Your task to perform on an android device: search for starred emails in the gmail app Image 0: 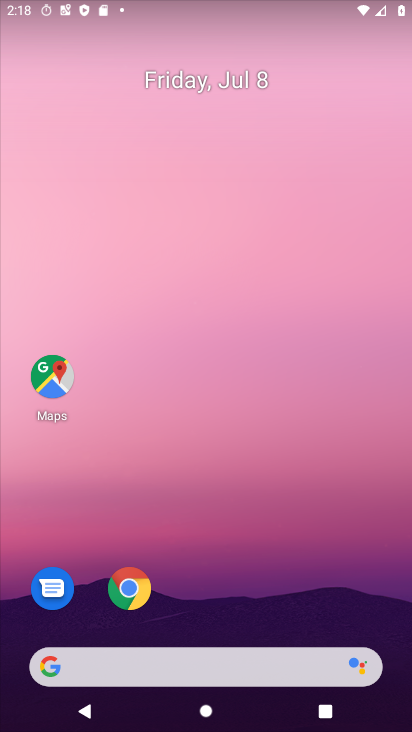
Step 0: press home button
Your task to perform on an android device: search for starred emails in the gmail app Image 1: 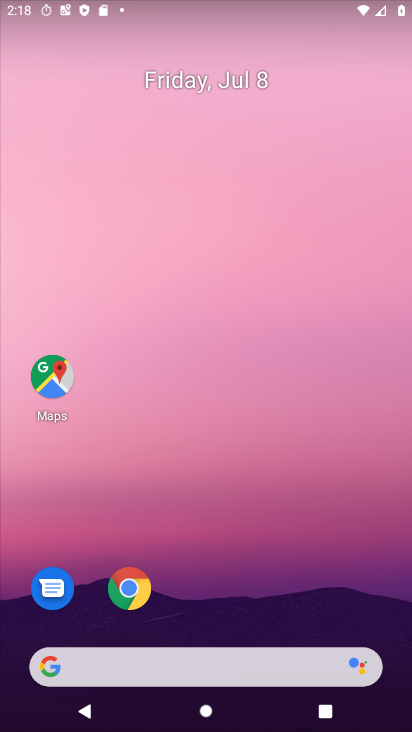
Step 1: drag from (232, 621) to (262, 13)
Your task to perform on an android device: search for starred emails in the gmail app Image 2: 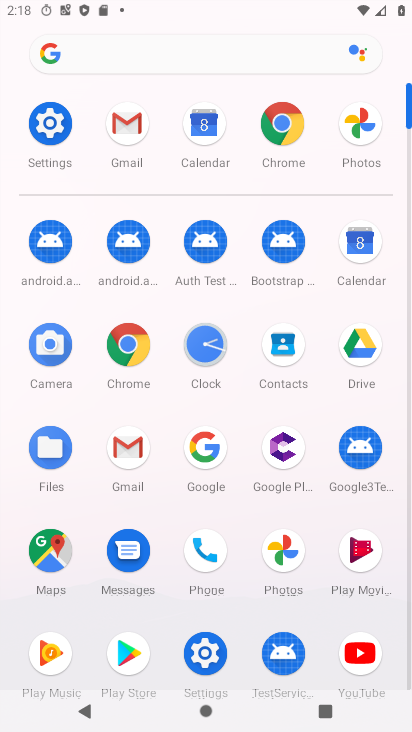
Step 2: click (122, 128)
Your task to perform on an android device: search for starred emails in the gmail app Image 3: 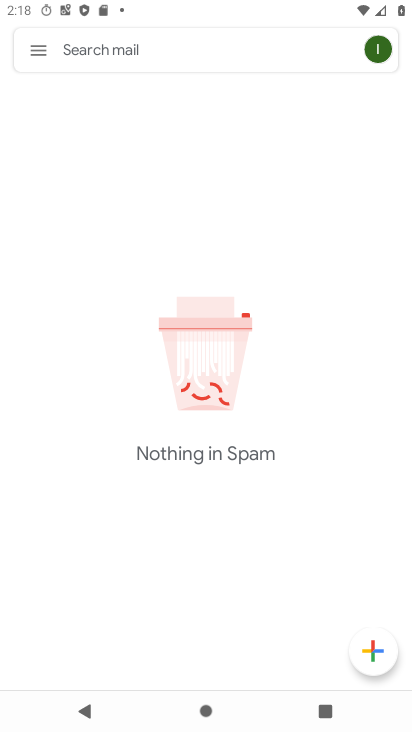
Step 3: click (33, 53)
Your task to perform on an android device: search for starred emails in the gmail app Image 4: 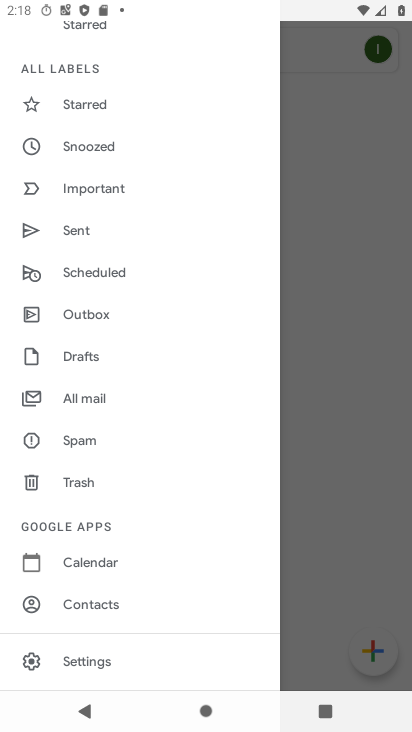
Step 4: click (82, 103)
Your task to perform on an android device: search for starred emails in the gmail app Image 5: 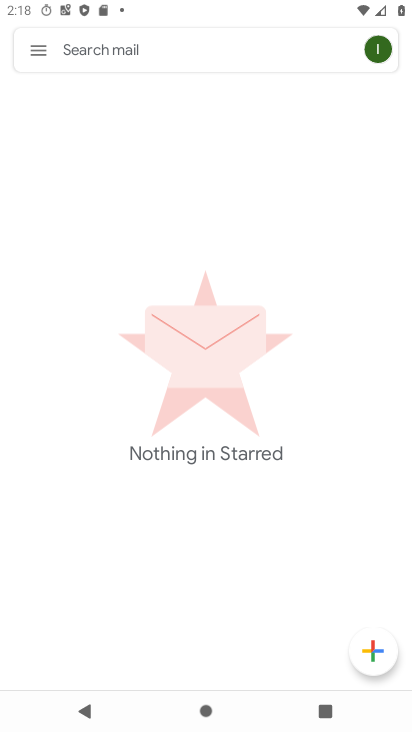
Step 5: task complete